Your task to perform on an android device: Go to wifi settings Image 0: 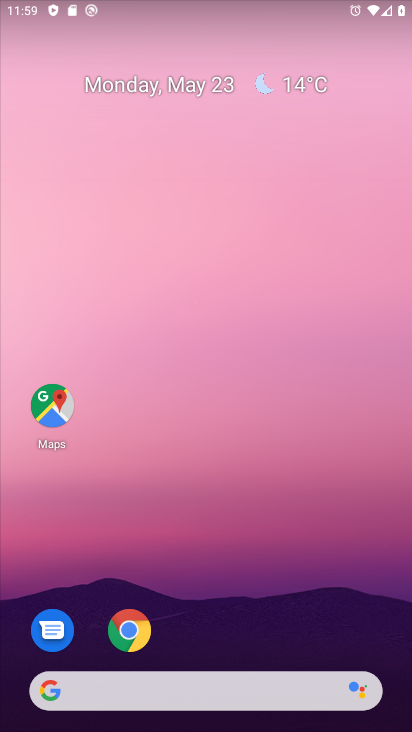
Step 0: drag from (290, 618) to (314, 257)
Your task to perform on an android device: Go to wifi settings Image 1: 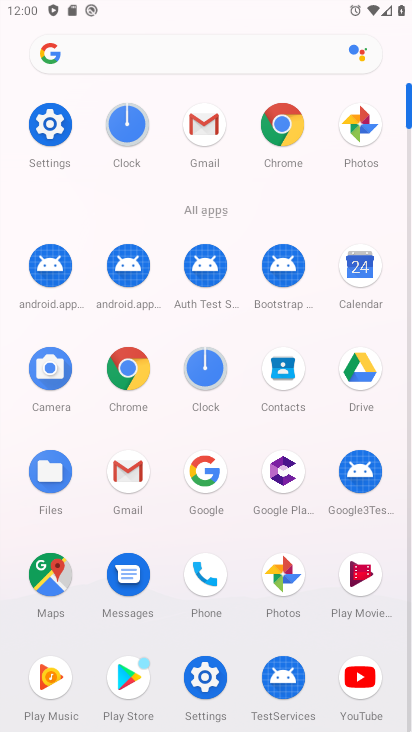
Step 1: click (203, 690)
Your task to perform on an android device: Go to wifi settings Image 2: 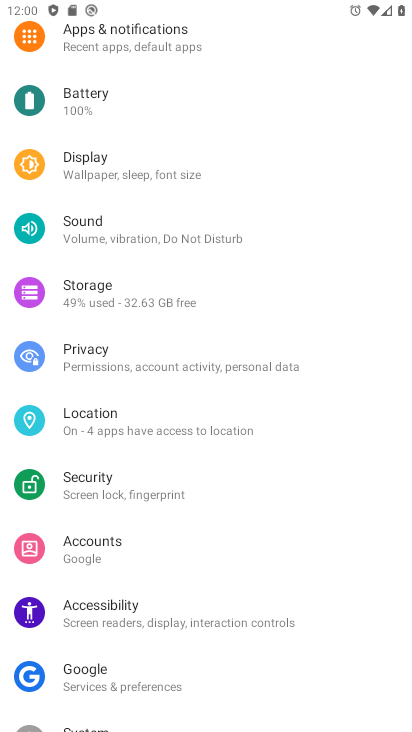
Step 2: drag from (160, 139) to (139, 553)
Your task to perform on an android device: Go to wifi settings Image 3: 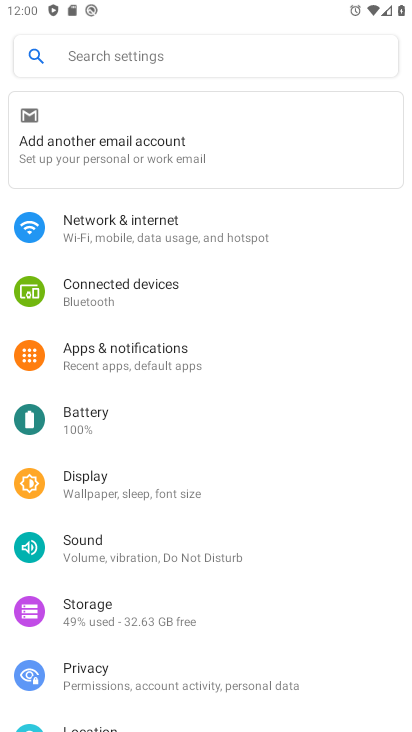
Step 3: click (112, 221)
Your task to perform on an android device: Go to wifi settings Image 4: 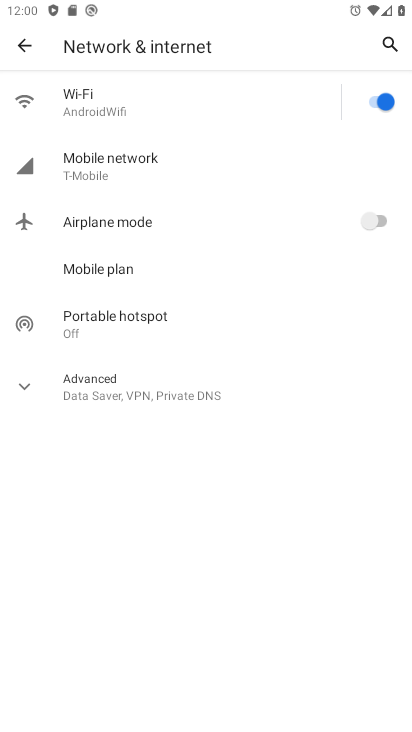
Step 4: click (70, 106)
Your task to perform on an android device: Go to wifi settings Image 5: 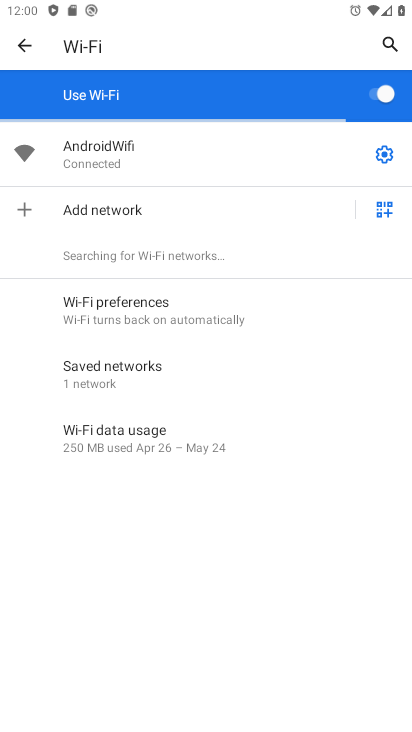
Step 5: click (368, 164)
Your task to perform on an android device: Go to wifi settings Image 6: 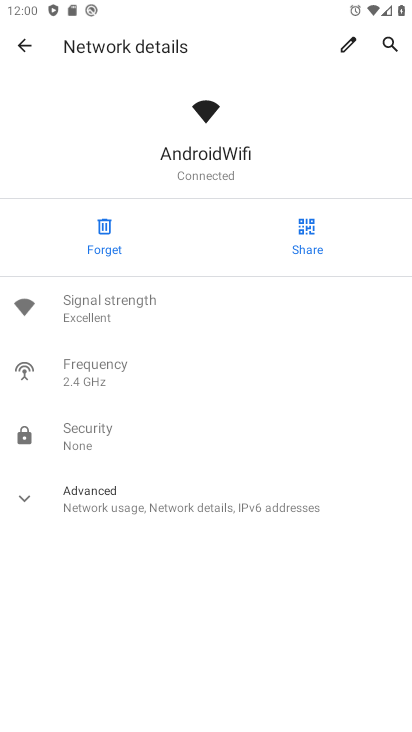
Step 6: task complete